Your task to perform on an android device: Search for pizza restaurants on Maps Image 0: 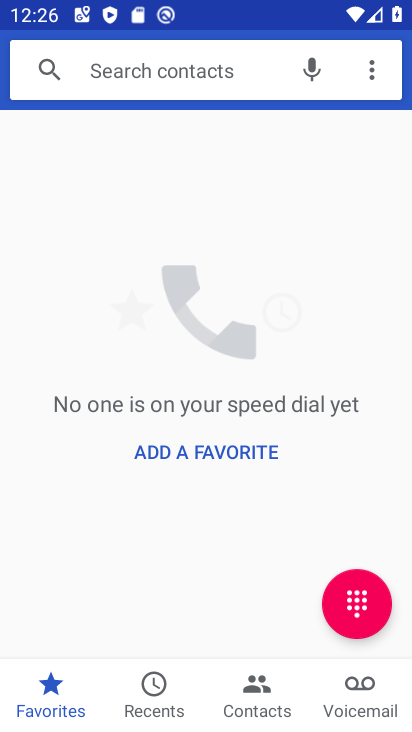
Step 0: press home button
Your task to perform on an android device: Search for pizza restaurants on Maps Image 1: 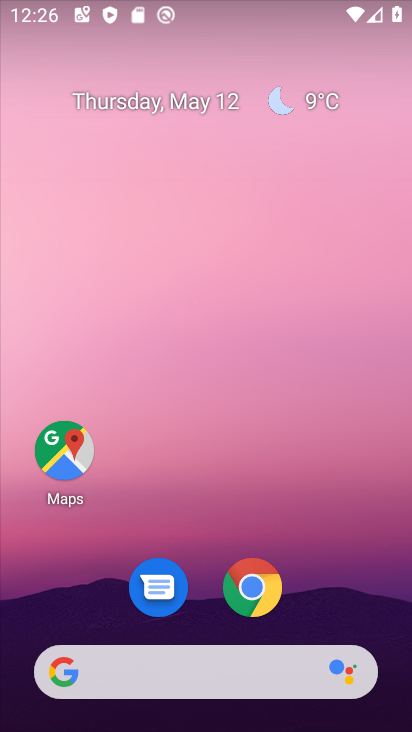
Step 1: drag from (210, 638) to (200, 7)
Your task to perform on an android device: Search for pizza restaurants on Maps Image 2: 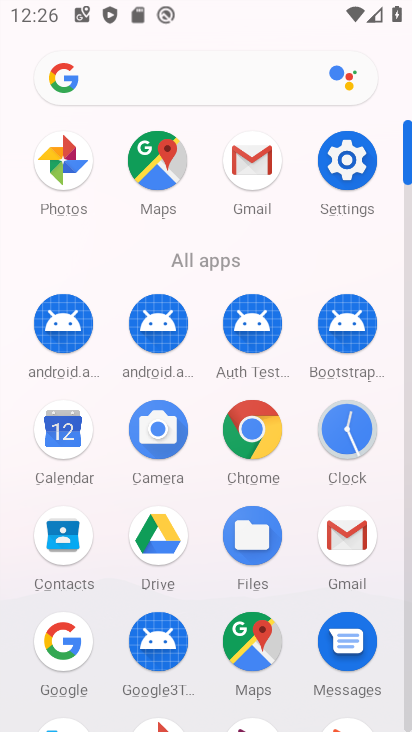
Step 2: click (243, 638)
Your task to perform on an android device: Search for pizza restaurants on Maps Image 3: 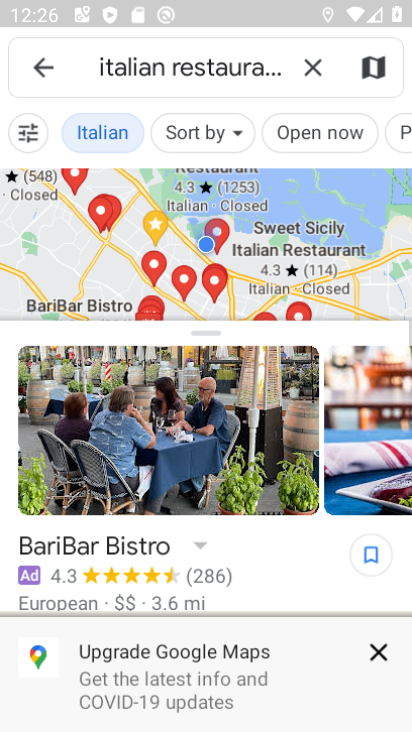
Step 3: click (303, 65)
Your task to perform on an android device: Search for pizza restaurants on Maps Image 4: 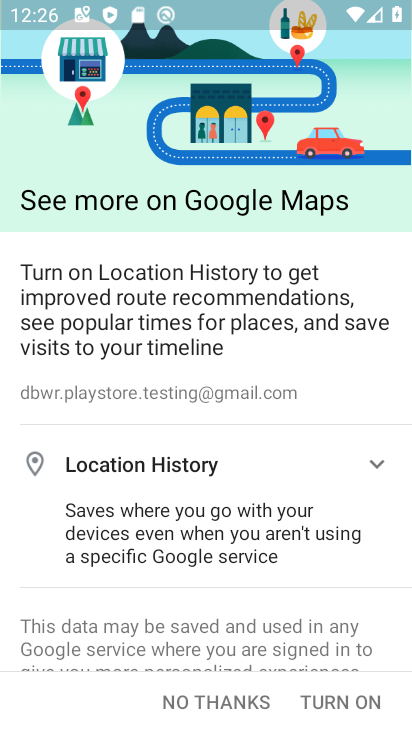
Step 4: press home button
Your task to perform on an android device: Search for pizza restaurants on Maps Image 5: 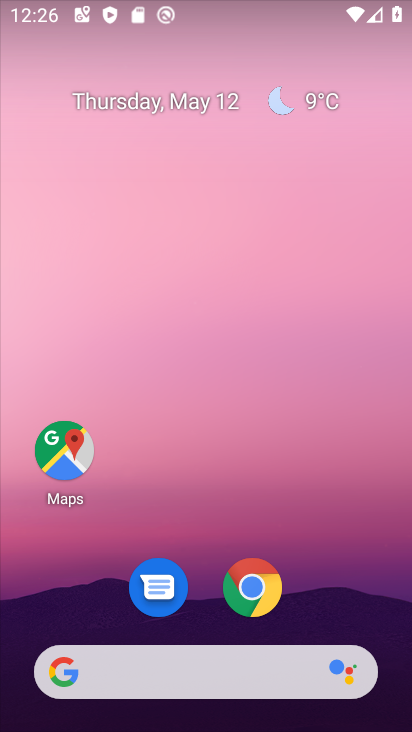
Step 5: click (81, 468)
Your task to perform on an android device: Search for pizza restaurants on Maps Image 6: 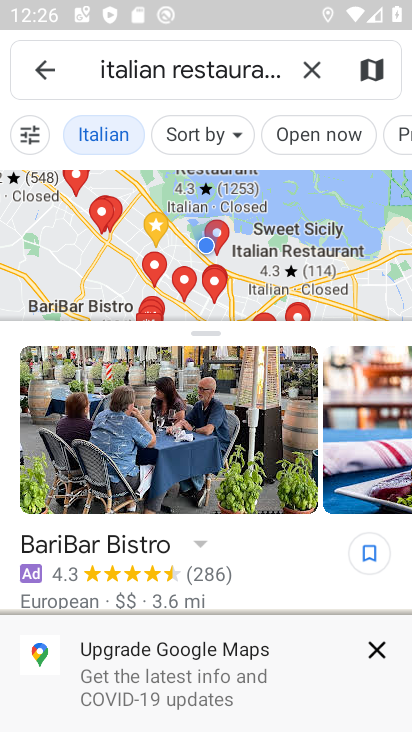
Step 6: click (312, 70)
Your task to perform on an android device: Search for pizza restaurants on Maps Image 7: 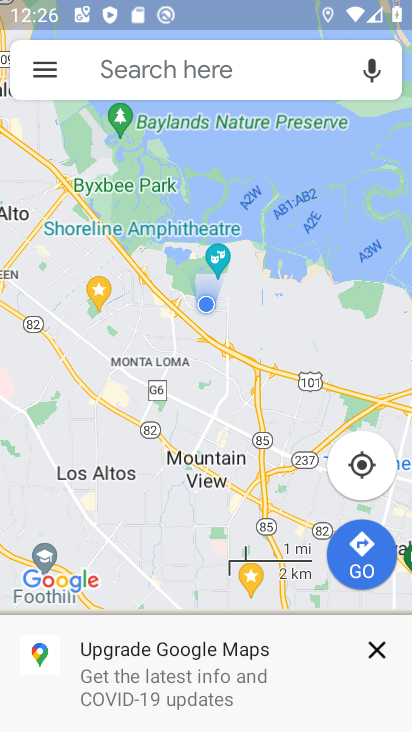
Step 7: click (196, 70)
Your task to perform on an android device: Search for pizza restaurants on Maps Image 8: 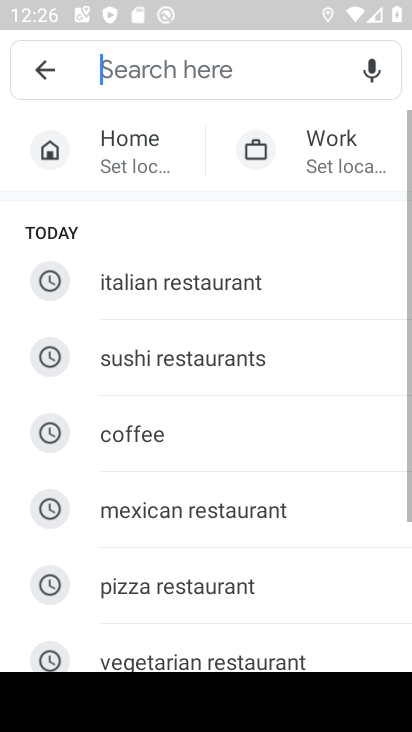
Step 8: click (190, 597)
Your task to perform on an android device: Search for pizza restaurants on Maps Image 9: 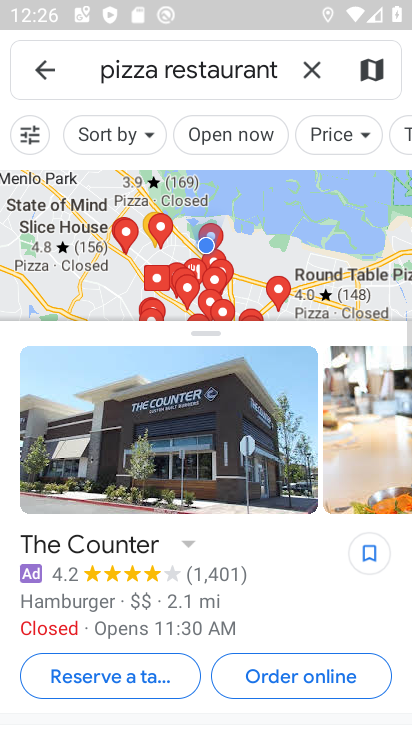
Step 9: task complete